Your task to perform on an android device: find which apps use the phone's location Image 0: 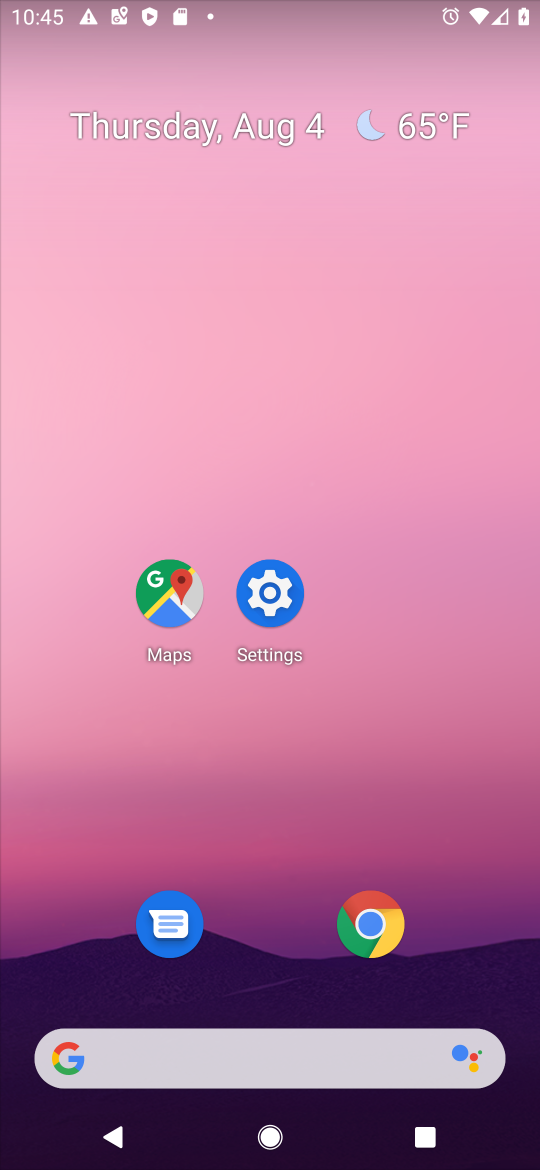
Step 0: press home button
Your task to perform on an android device: find which apps use the phone's location Image 1: 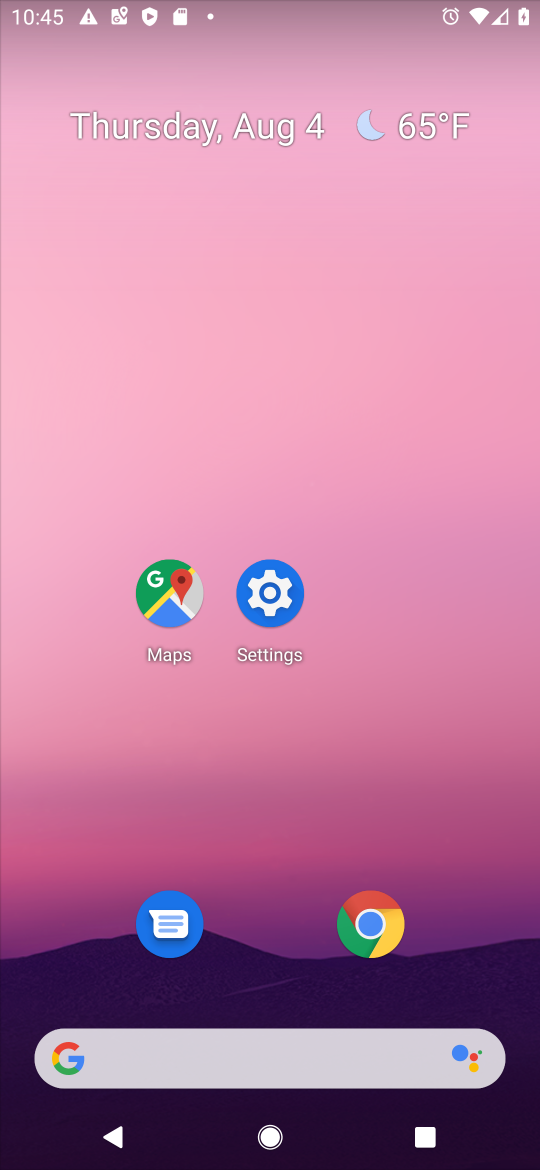
Step 1: click (286, 598)
Your task to perform on an android device: find which apps use the phone's location Image 2: 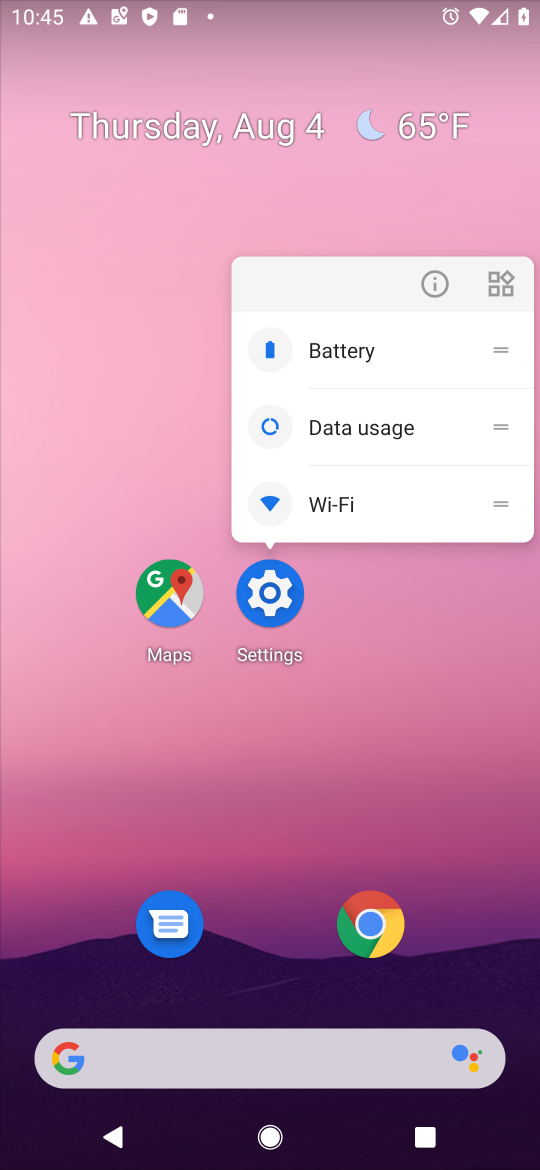
Step 2: click (262, 586)
Your task to perform on an android device: find which apps use the phone's location Image 3: 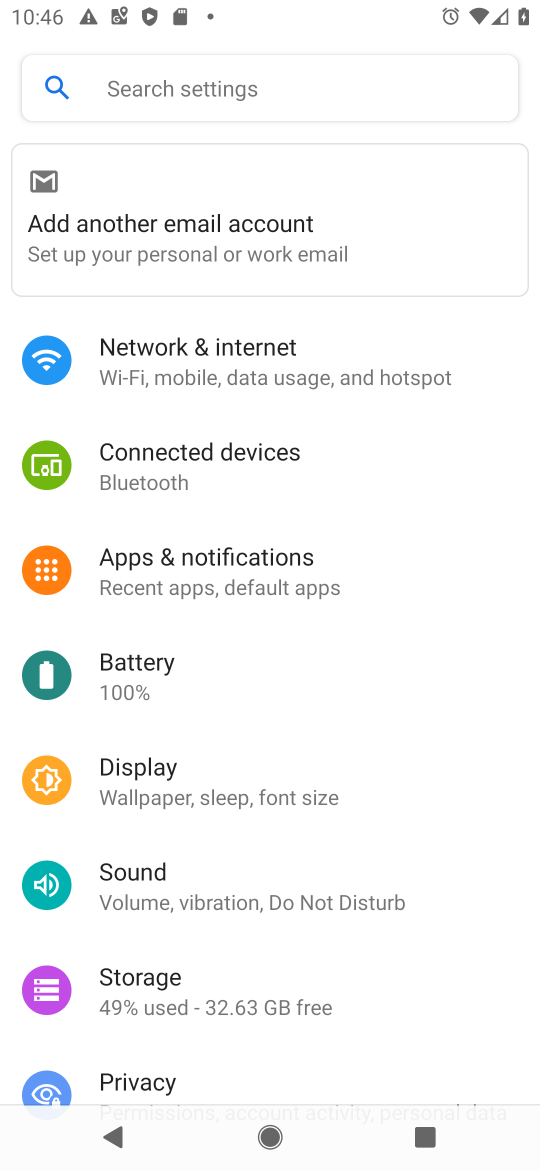
Step 3: drag from (284, 993) to (408, 254)
Your task to perform on an android device: find which apps use the phone's location Image 4: 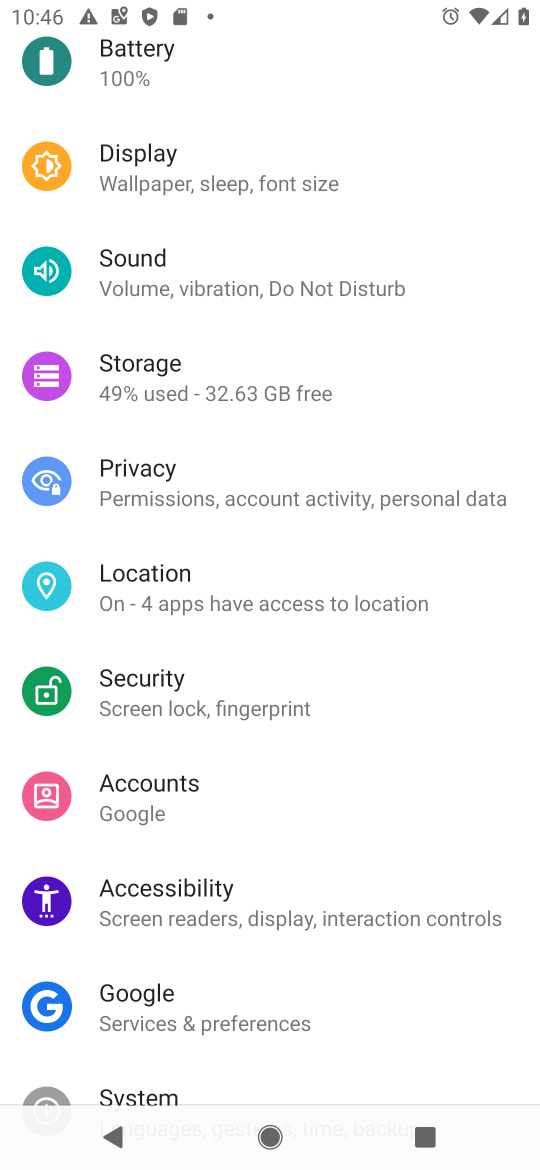
Step 4: click (171, 575)
Your task to perform on an android device: find which apps use the phone's location Image 5: 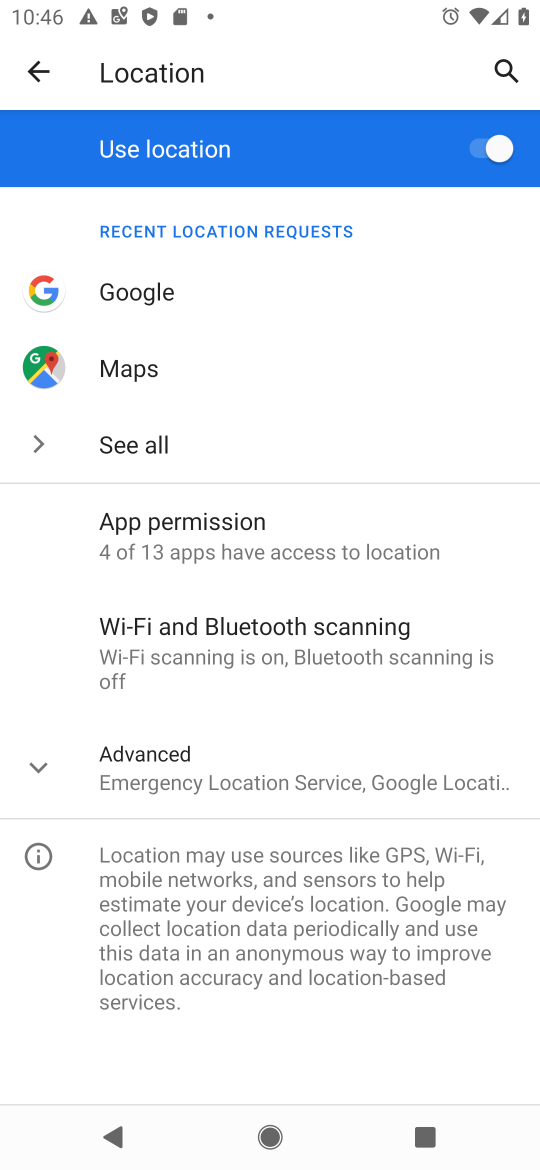
Step 5: click (193, 529)
Your task to perform on an android device: find which apps use the phone's location Image 6: 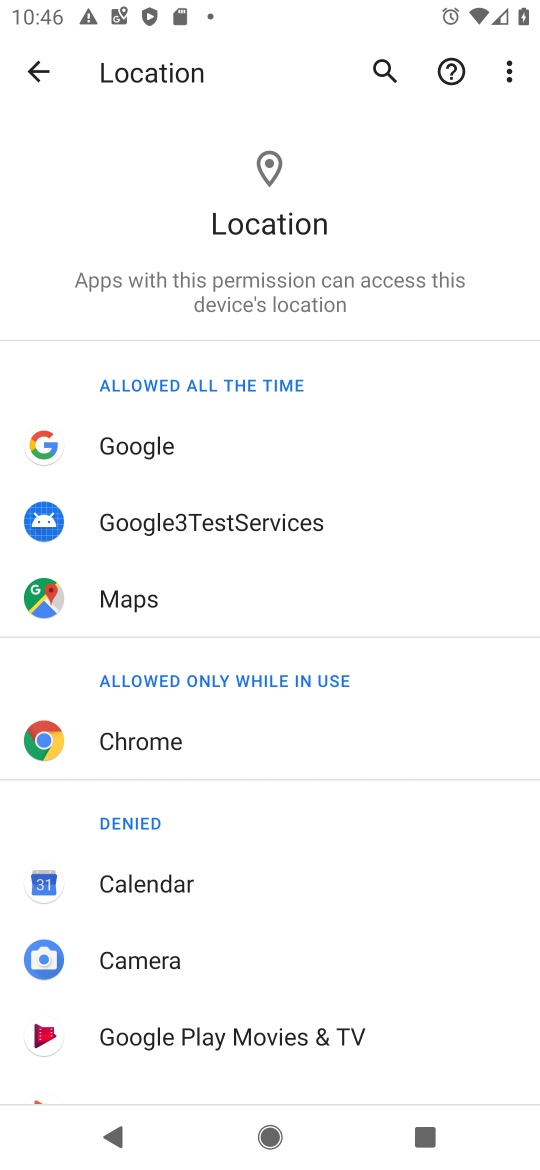
Step 6: drag from (369, 964) to (418, 277)
Your task to perform on an android device: find which apps use the phone's location Image 7: 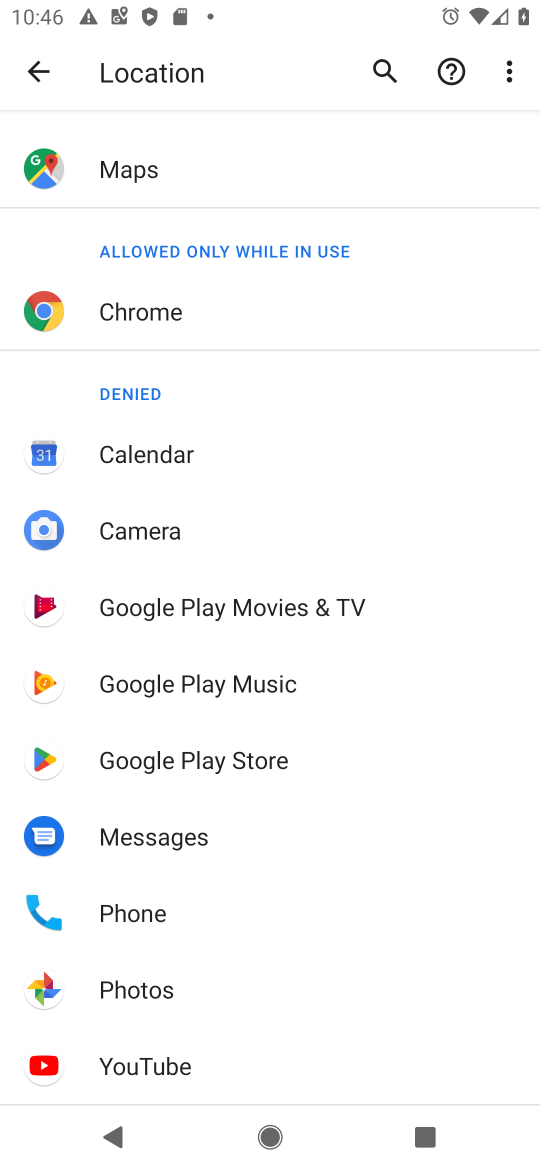
Step 7: click (143, 912)
Your task to perform on an android device: find which apps use the phone's location Image 8: 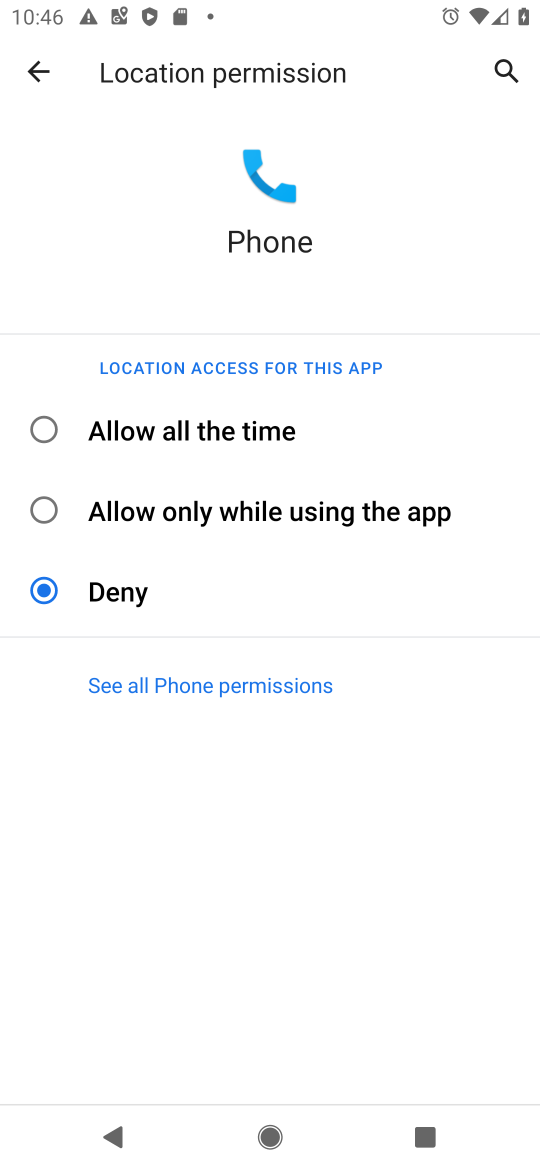
Step 8: task complete